Your task to perform on an android device: set default search engine in the chrome app Image 0: 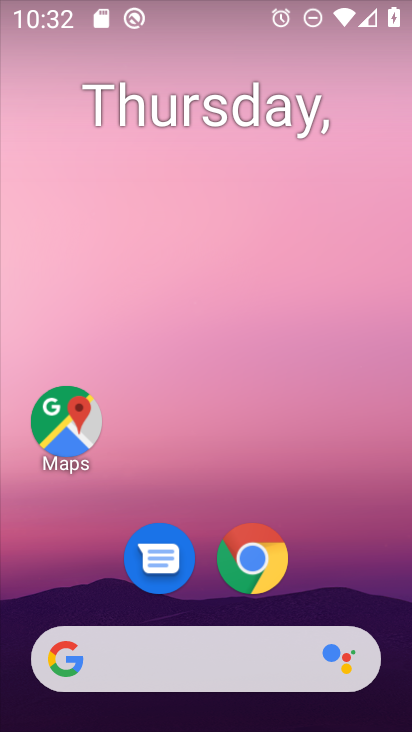
Step 0: click (248, 561)
Your task to perform on an android device: set default search engine in the chrome app Image 1: 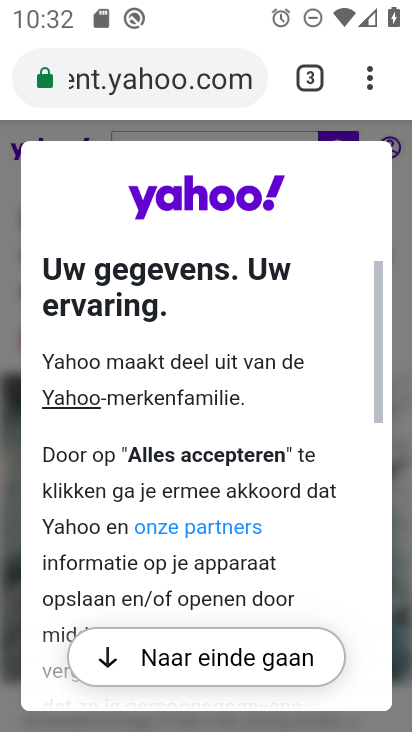
Step 1: click (369, 85)
Your task to perform on an android device: set default search engine in the chrome app Image 2: 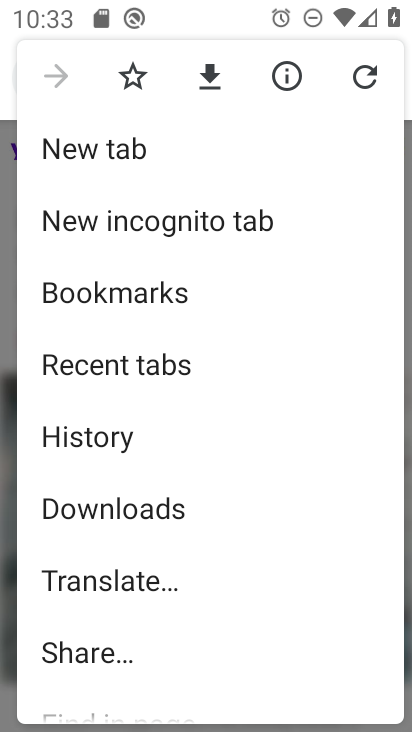
Step 2: drag from (215, 624) to (254, 94)
Your task to perform on an android device: set default search engine in the chrome app Image 3: 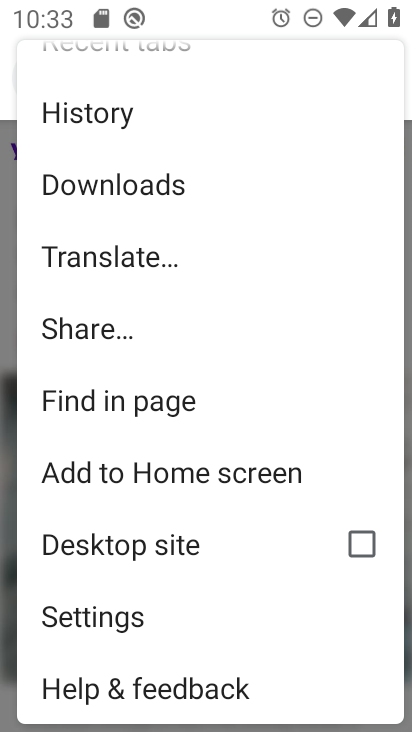
Step 3: click (109, 615)
Your task to perform on an android device: set default search engine in the chrome app Image 4: 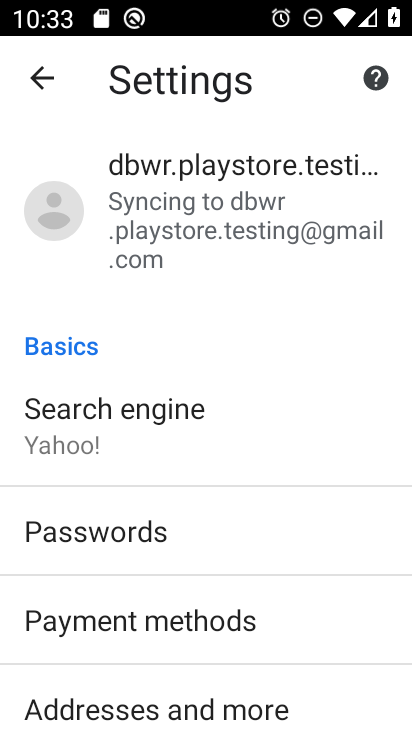
Step 4: drag from (157, 652) to (215, 539)
Your task to perform on an android device: set default search engine in the chrome app Image 5: 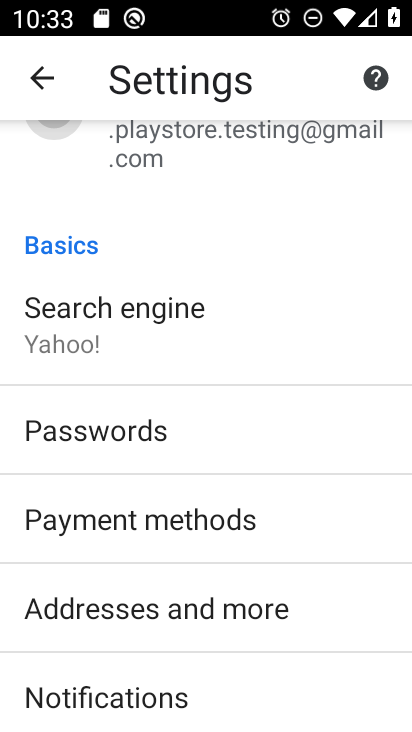
Step 5: click (88, 329)
Your task to perform on an android device: set default search engine in the chrome app Image 6: 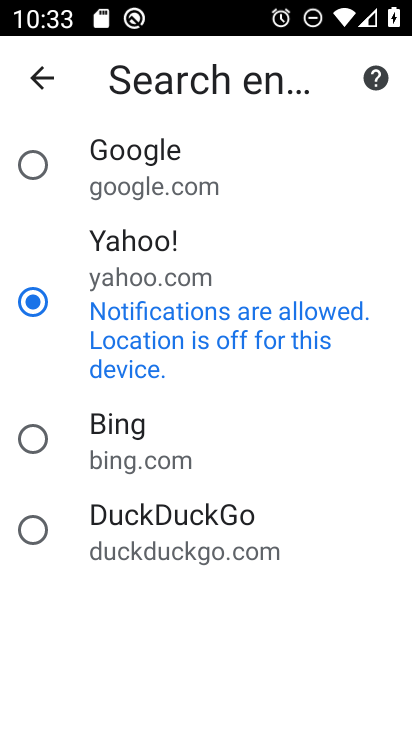
Step 6: task complete